Your task to perform on an android device: Do I have any events tomorrow? Image 0: 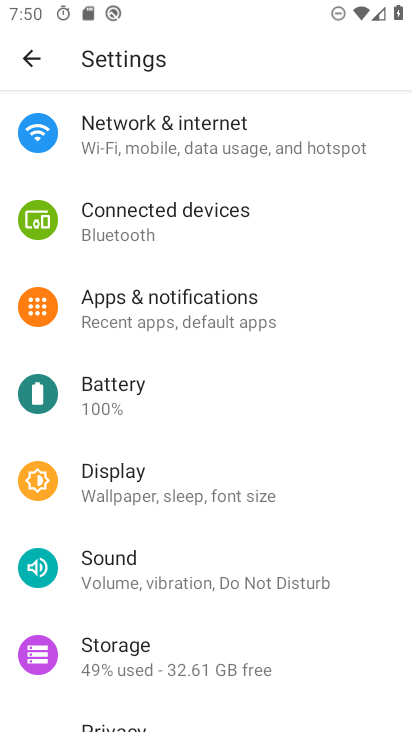
Step 0: press home button
Your task to perform on an android device: Do I have any events tomorrow? Image 1: 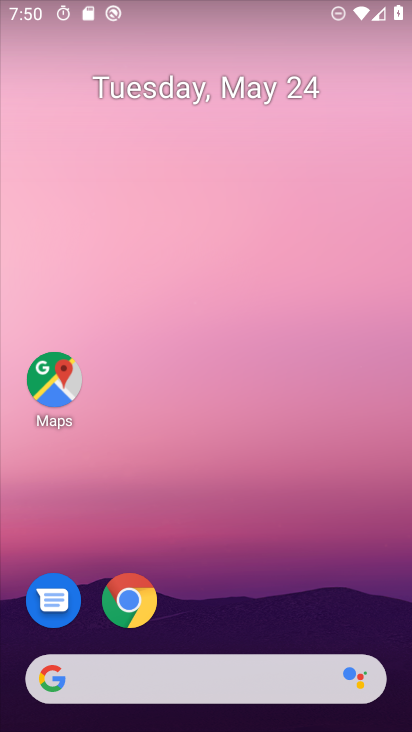
Step 1: drag from (235, 490) to (286, 13)
Your task to perform on an android device: Do I have any events tomorrow? Image 2: 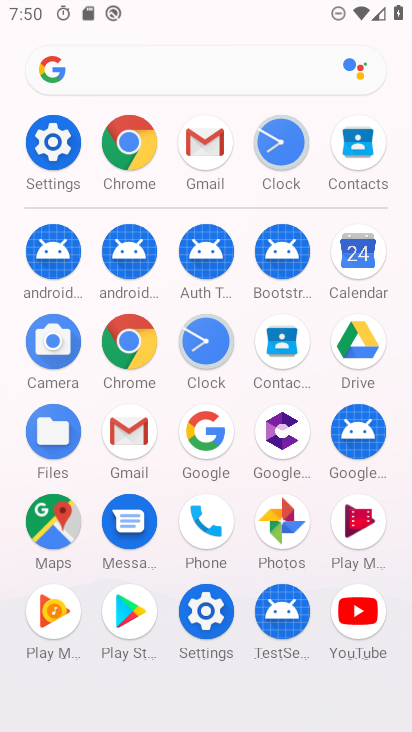
Step 2: click (363, 263)
Your task to perform on an android device: Do I have any events tomorrow? Image 3: 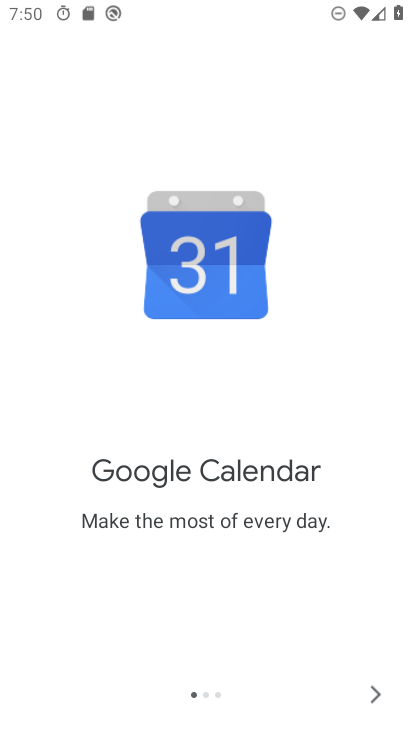
Step 3: click (370, 689)
Your task to perform on an android device: Do I have any events tomorrow? Image 4: 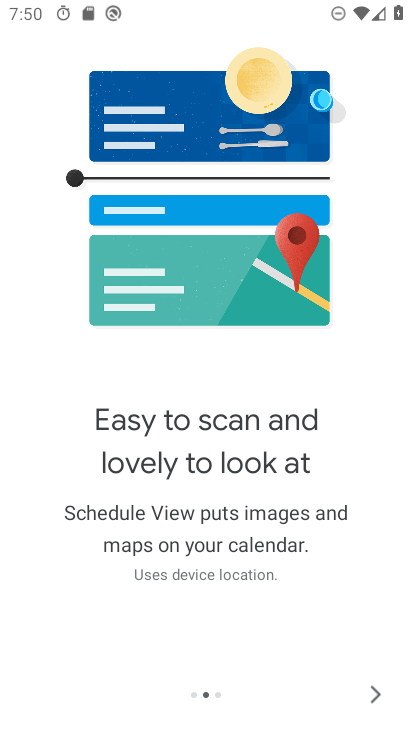
Step 4: click (370, 689)
Your task to perform on an android device: Do I have any events tomorrow? Image 5: 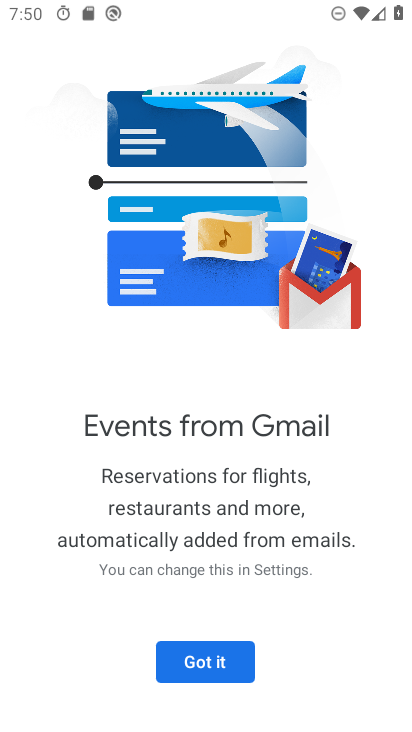
Step 5: click (220, 663)
Your task to perform on an android device: Do I have any events tomorrow? Image 6: 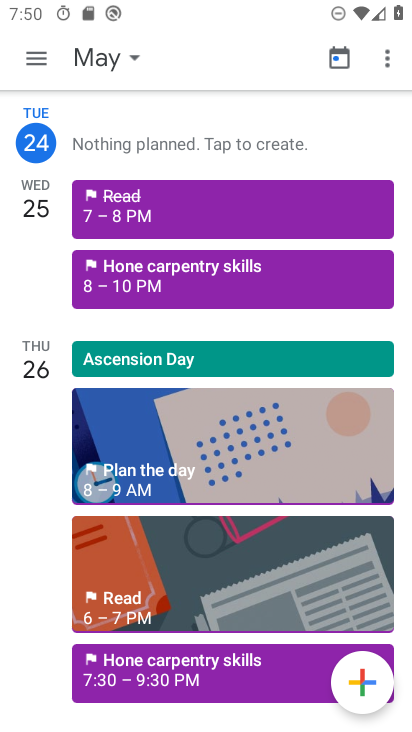
Step 6: click (157, 353)
Your task to perform on an android device: Do I have any events tomorrow? Image 7: 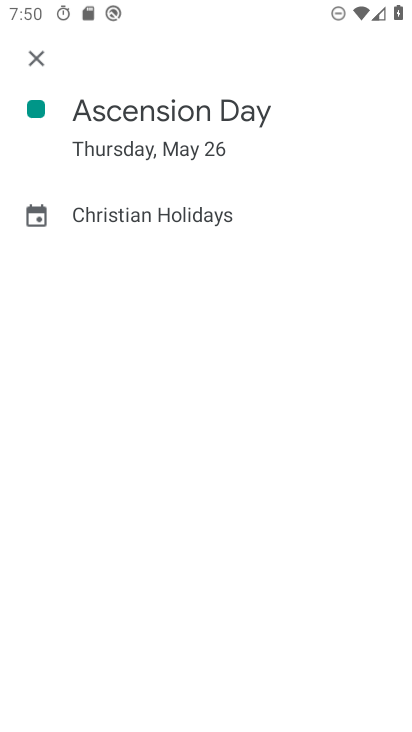
Step 7: task complete